Your task to perform on an android device: Go to location settings Image 0: 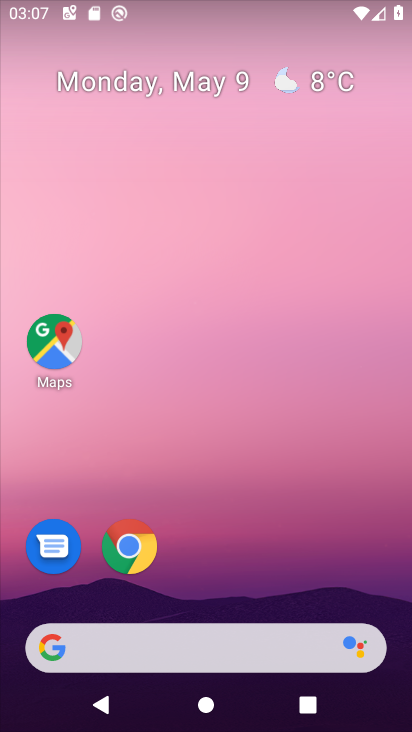
Step 0: drag from (338, 535) to (310, 18)
Your task to perform on an android device: Go to location settings Image 1: 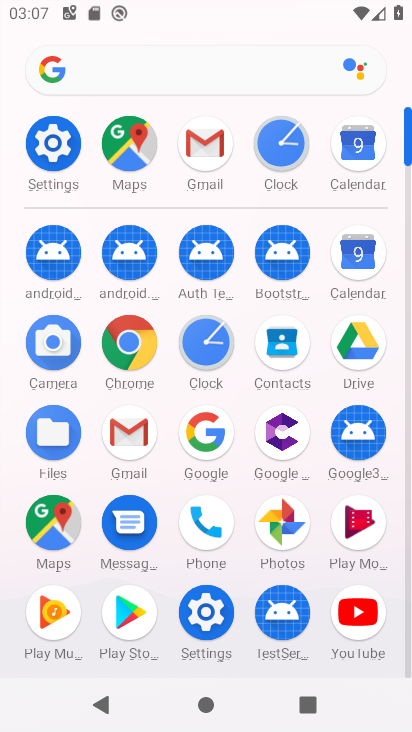
Step 1: click (51, 127)
Your task to perform on an android device: Go to location settings Image 2: 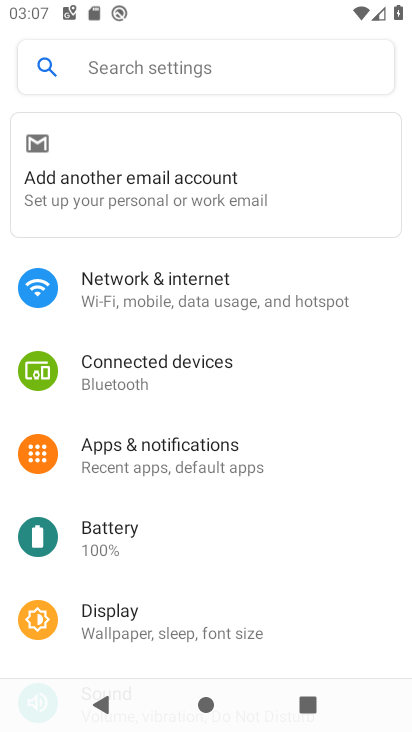
Step 2: drag from (221, 397) to (219, 122)
Your task to perform on an android device: Go to location settings Image 3: 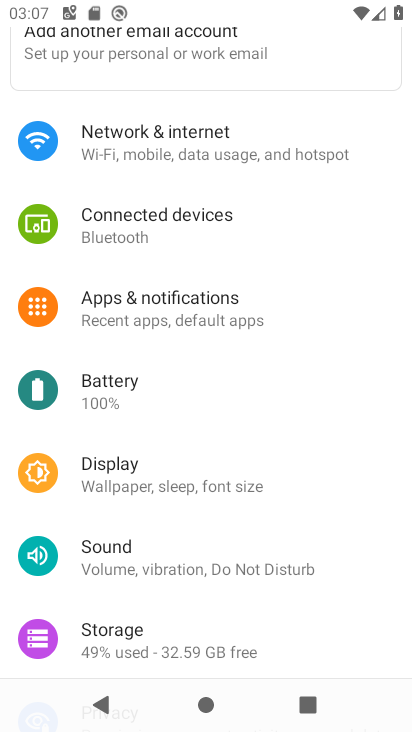
Step 3: drag from (230, 608) to (232, 184)
Your task to perform on an android device: Go to location settings Image 4: 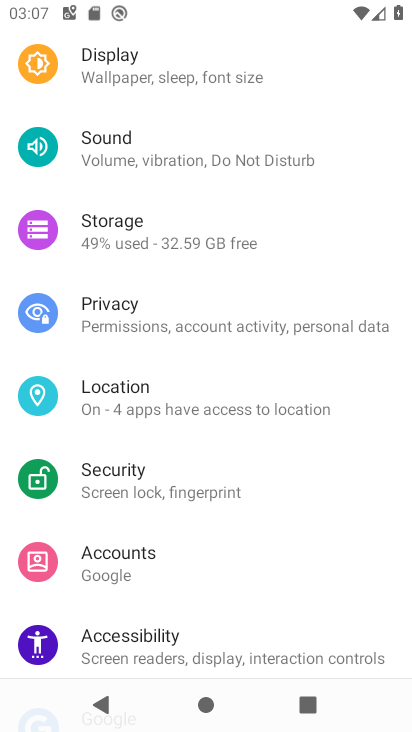
Step 4: click (197, 399)
Your task to perform on an android device: Go to location settings Image 5: 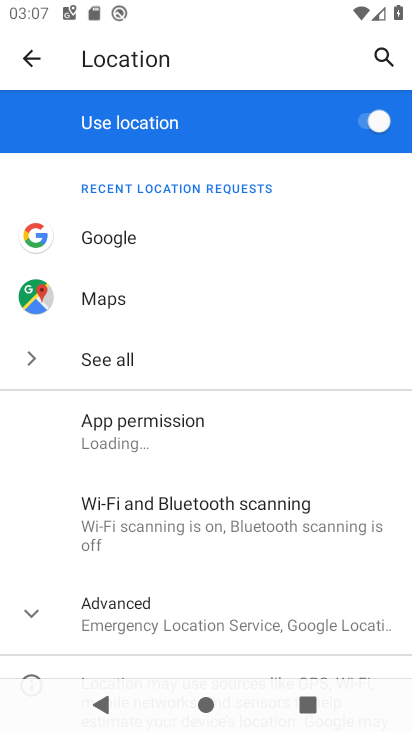
Step 5: task complete